Your task to perform on an android device: Open Yahoo.com Image 0: 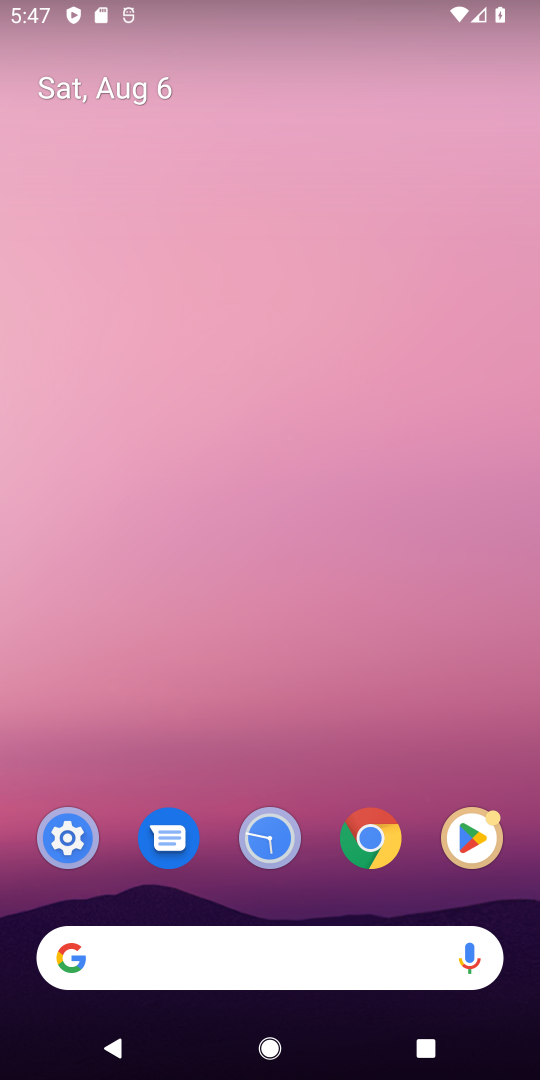
Step 0: click (386, 828)
Your task to perform on an android device: Open Yahoo.com Image 1: 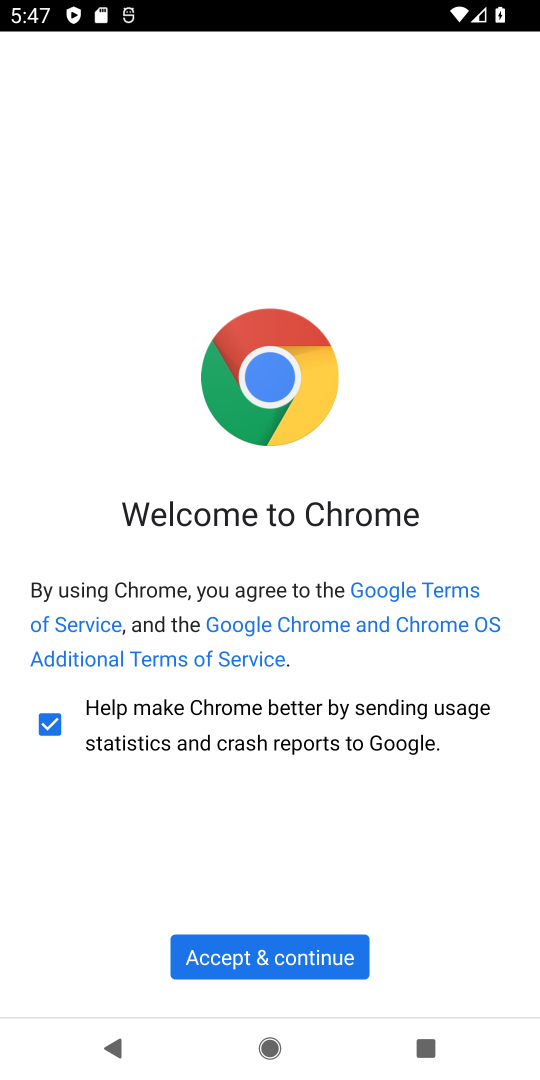
Step 1: click (303, 962)
Your task to perform on an android device: Open Yahoo.com Image 2: 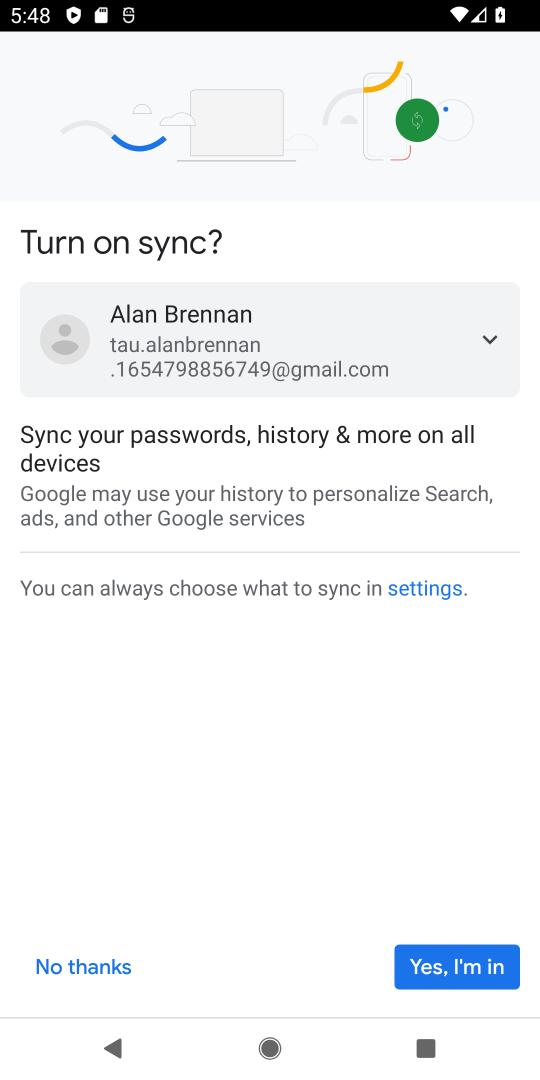
Step 2: click (431, 961)
Your task to perform on an android device: Open Yahoo.com Image 3: 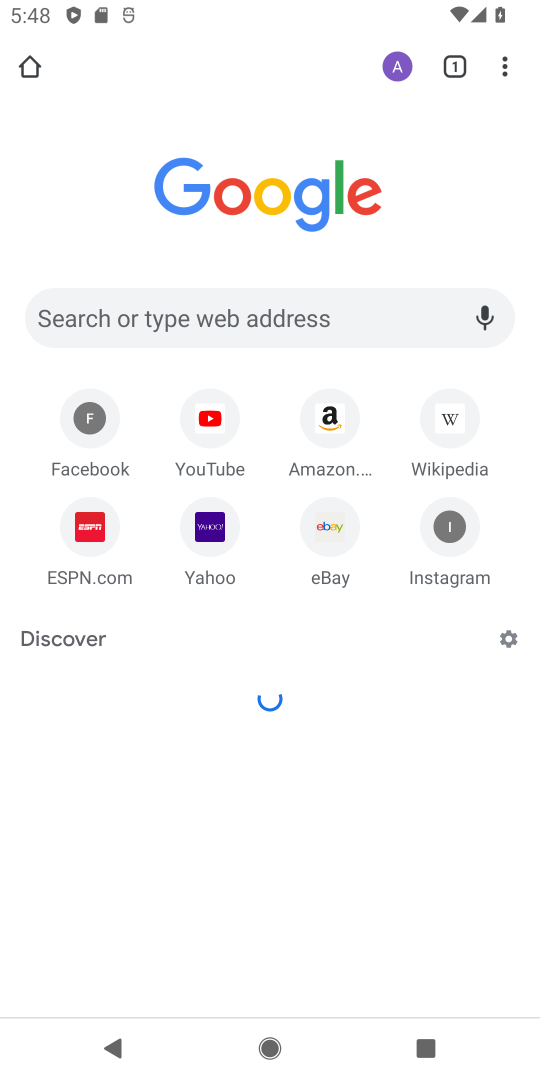
Step 3: click (207, 538)
Your task to perform on an android device: Open Yahoo.com Image 4: 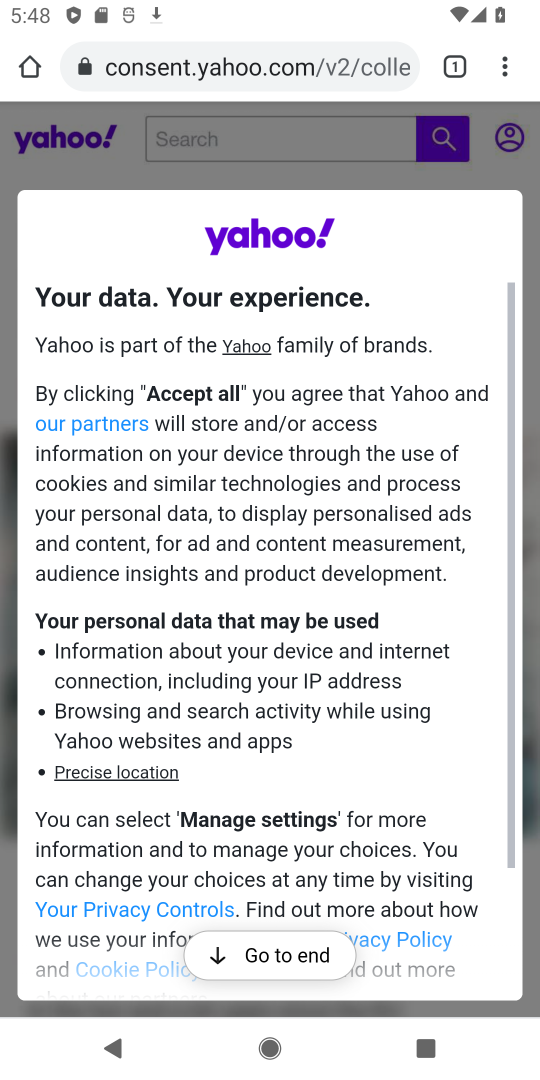
Step 4: task complete